Your task to perform on an android device: Open calendar and show me the fourth week of next month Image 0: 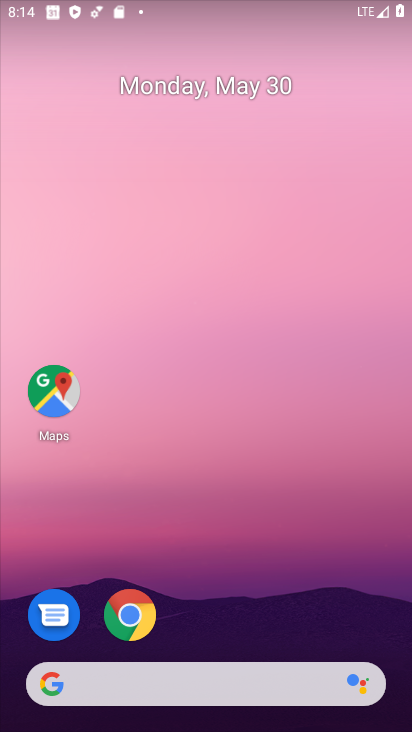
Step 0: drag from (125, 723) to (346, 3)
Your task to perform on an android device: Open calendar and show me the fourth week of next month Image 1: 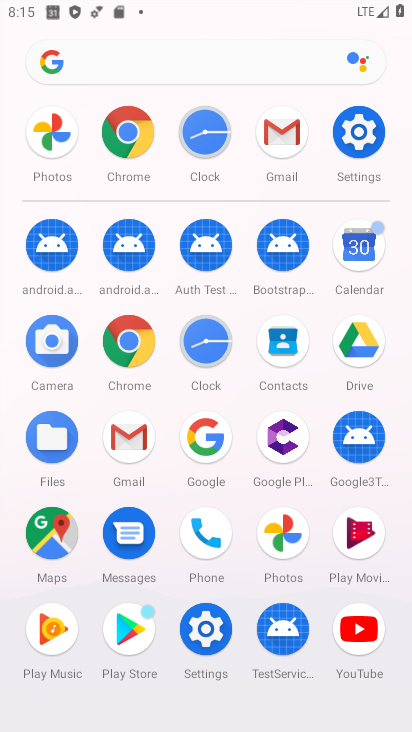
Step 1: click (358, 258)
Your task to perform on an android device: Open calendar and show me the fourth week of next month Image 2: 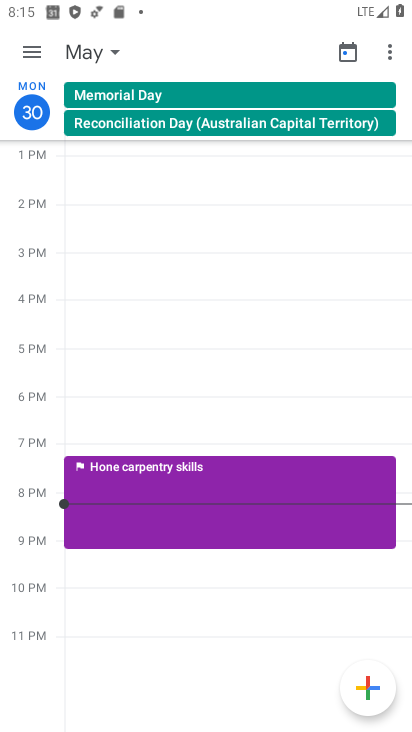
Step 2: click (90, 53)
Your task to perform on an android device: Open calendar and show me the fourth week of next month Image 3: 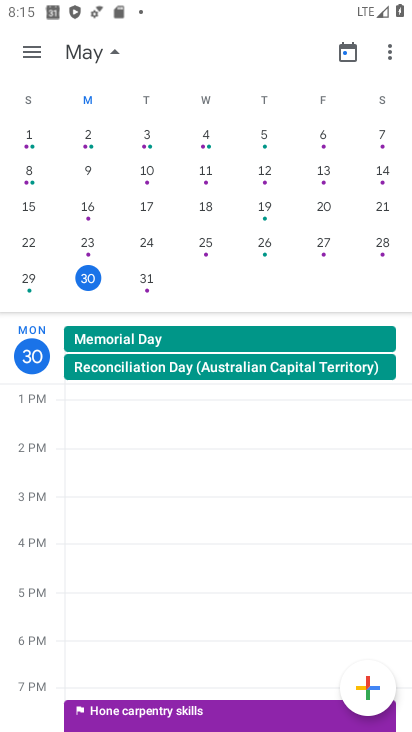
Step 3: drag from (351, 272) to (20, 275)
Your task to perform on an android device: Open calendar and show me the fourth week of next month Image 4: 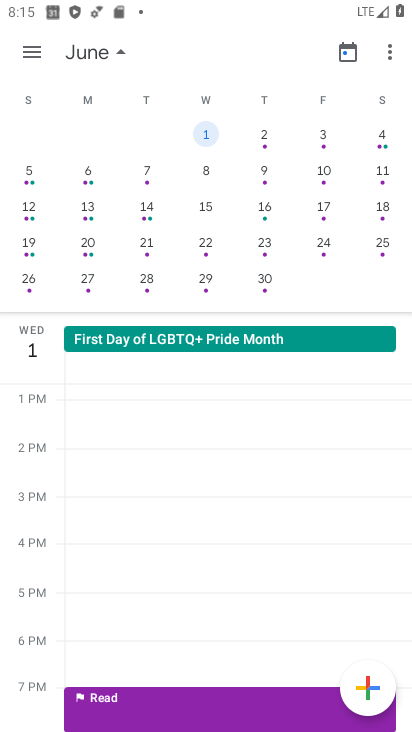
Step 4: click (18, 35)
Your task to perform on an android device: Open calendar and show me the fourth week of next month Image 5: 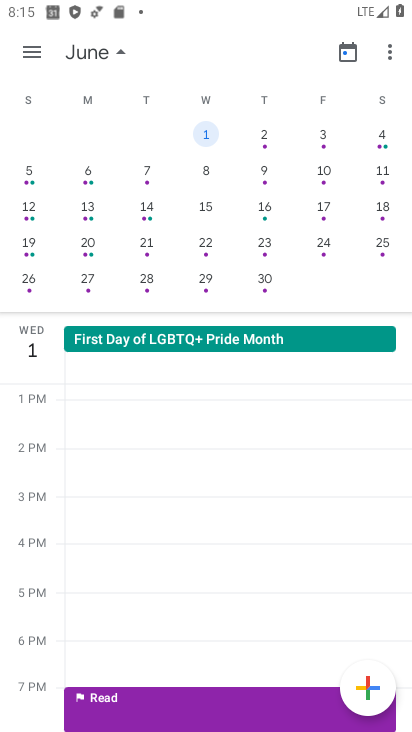
Step 5: click (24, 58)
Your task to perform on an android device: Open calendar and show me the fourth week of next month Image 6: 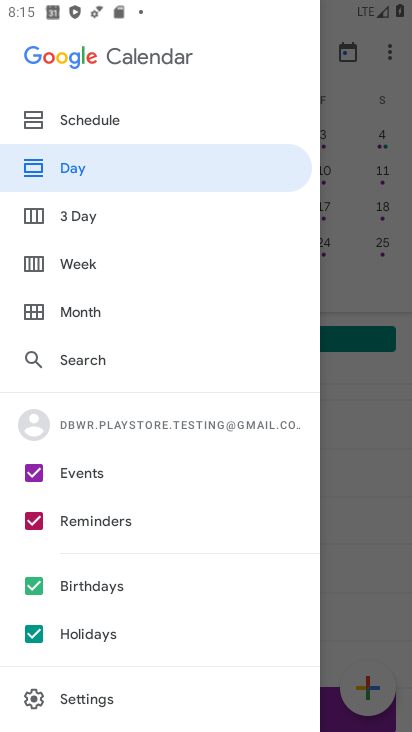
Step 6: click (87, 270)
Your task to perform on an android device: Open calendar and show me the fourth week of next month Image 7: 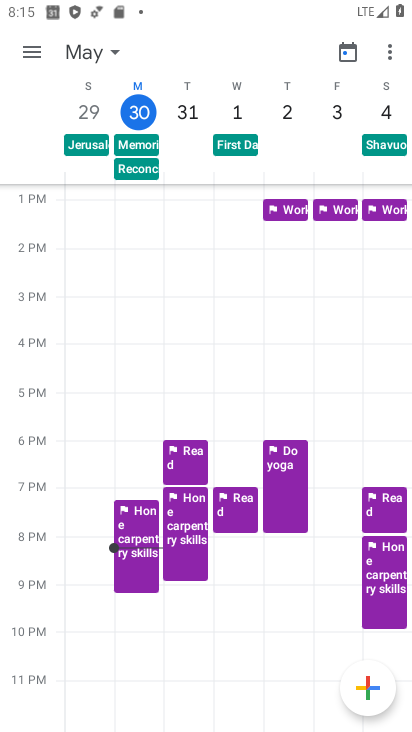
Step 7: task complete